Your task to perform on an android device: change the clock display to show seconds Image 0: 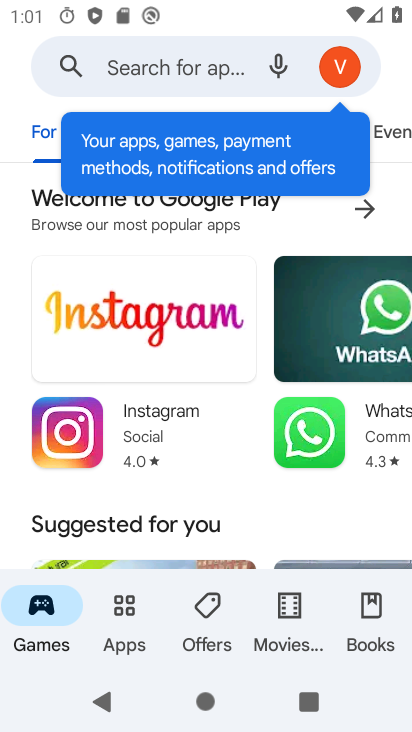
Step 0: press home button
Your task to perform on an android device: change the clock display to show seconds Image 1: 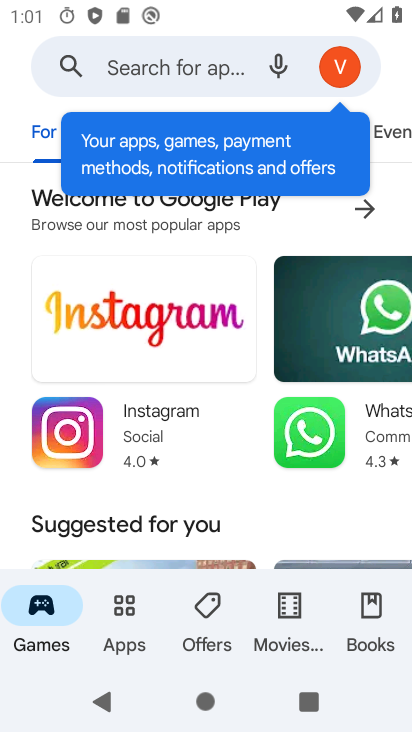
Step 1: press home button
Your task to perform on an android device: change the clock display to show seconds Image 2: 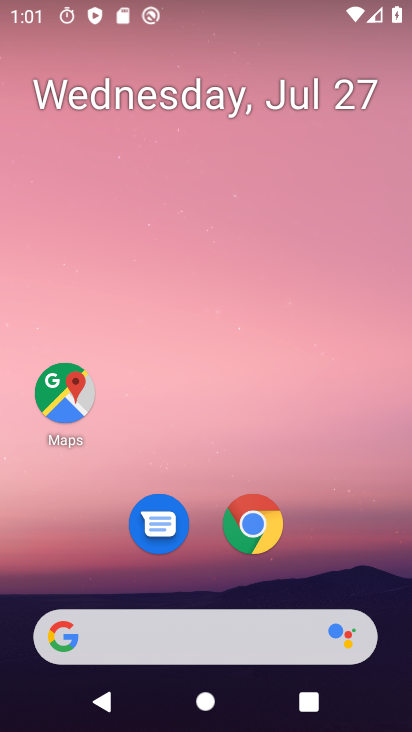
Step 2: drag from (333, 521) to (316, 81)
Your task to perform on an android device: change the clock display to show seconds Image 3: 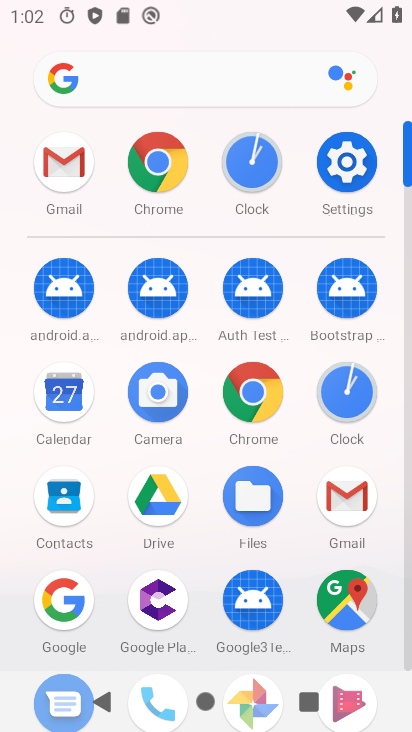
Step 3: click (261, 163)
Your task to perform on an android device: change the clock display to show seconds Image 4: 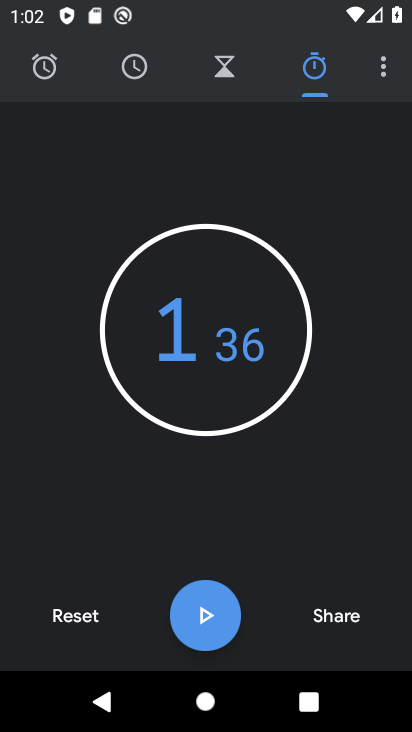
Step 4: click (133, 66)
Your task to perform on an android device: change the clock display to show seconds Image 5: 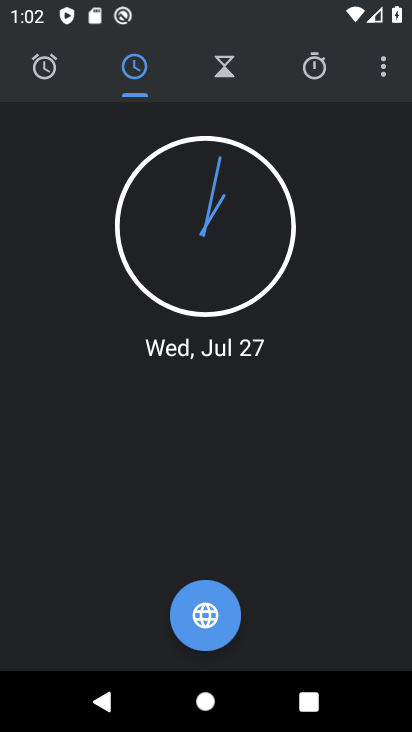
Step 5: click (377, 67)
Your task to perform on an android device: change the clock display to show seconds Image 6: 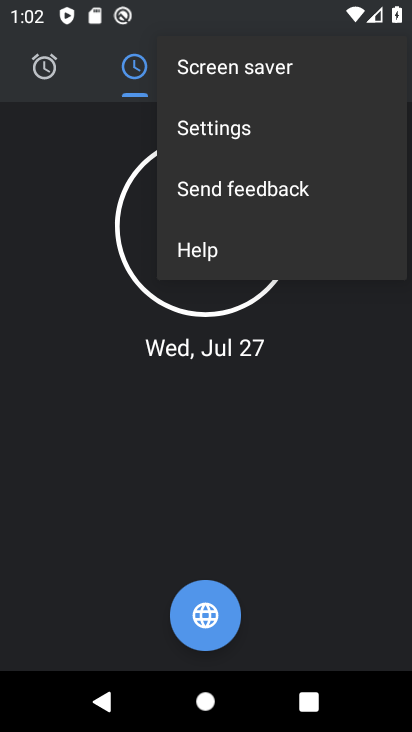
Step 6: click (306, 126)
Your task to perform on an android device: change the clock display to show seconds Image 7: 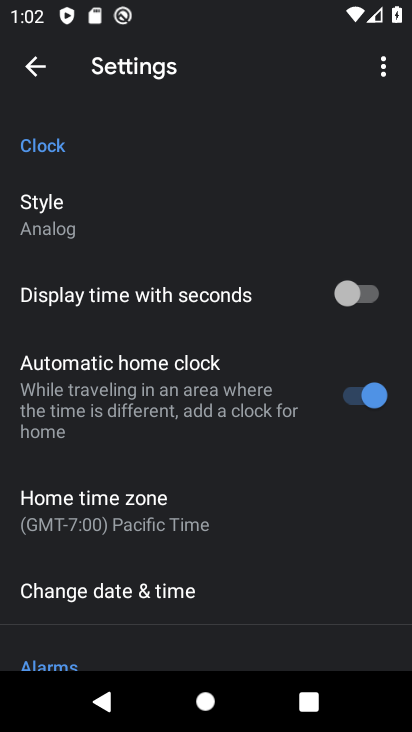
Step 7: click (357, 292)
Your task to perform on an android device: change the clock display to show seconds Image 8: 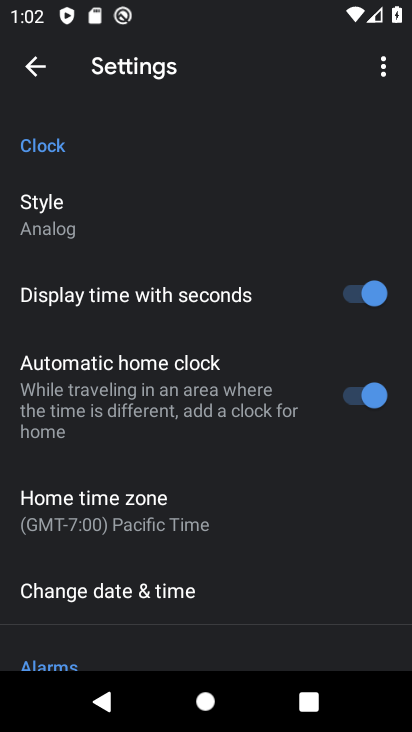
Step 8: click (39, 64)
Your task to perform on an android device: change the clock display to show seconds Image 9: 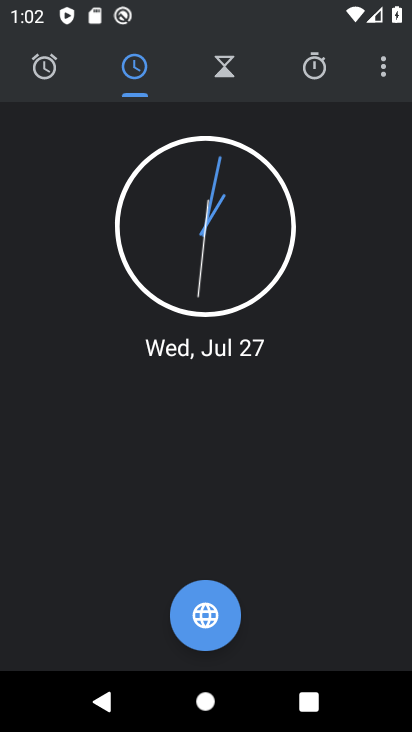
Step 9: task complete